Your task to perform on an android device: change timer sound Image 0: 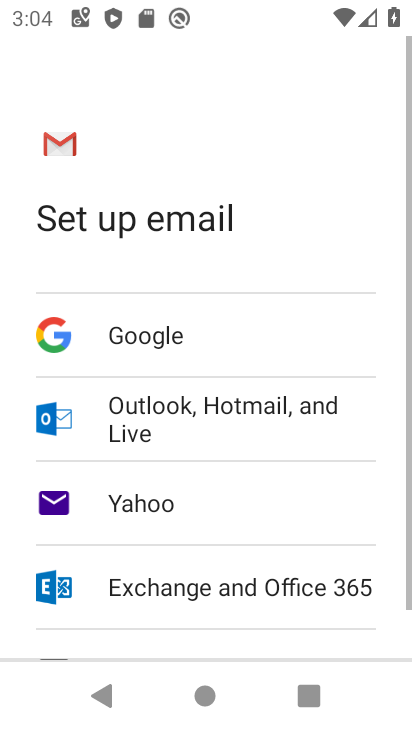
Step 0: press back button
Your task to perform on an android device: change timer sound Image 1: 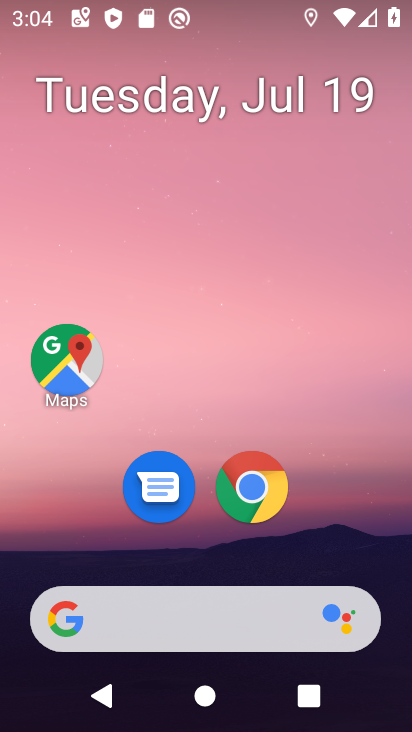
Step 1: drag from (261, 494) to (287, 18)
Your task to perform on an android device: change timer sound Image 2: 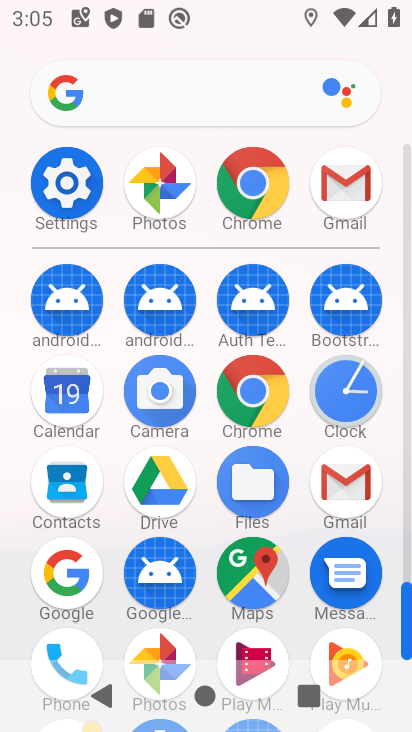
Step 2: click (351, 396)
Your task to perform on an android device: change timer sound Image 3: 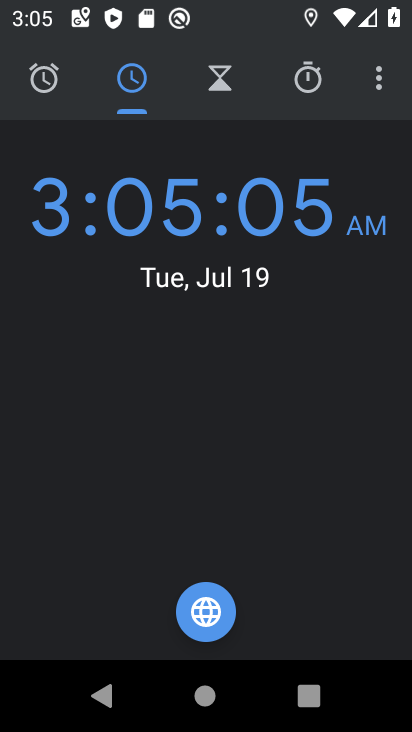
Step 3: click (375, 74)
Your task to perform on an android device: change timer sound Image 4: 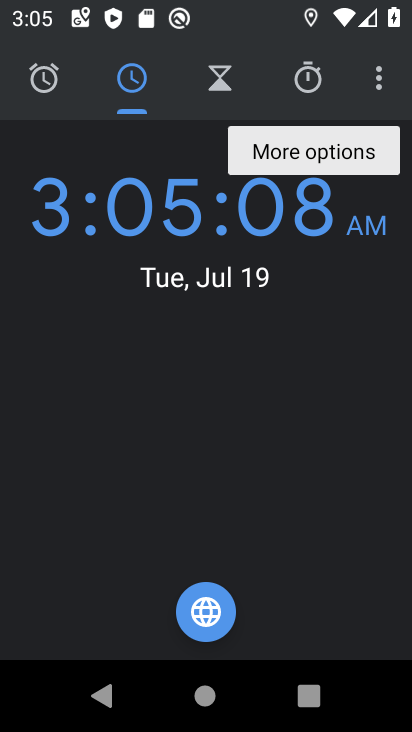
Step 4: click (375, 74)
Your task to perform on an android device: change timer sound Image 5: 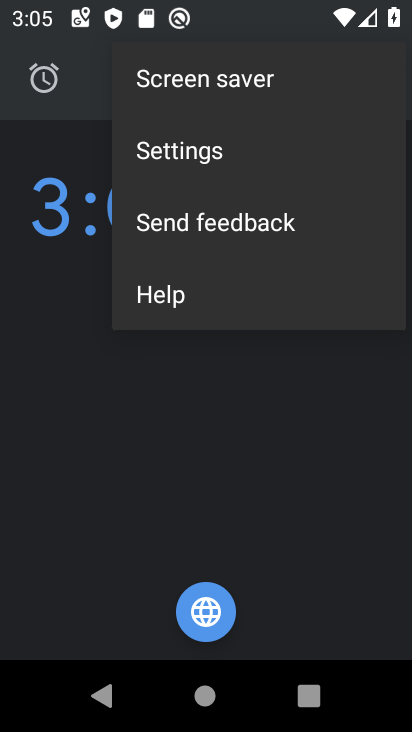
Step 5: click (196, 161)
Your task to perform on an android device: change timer sound Image 6: 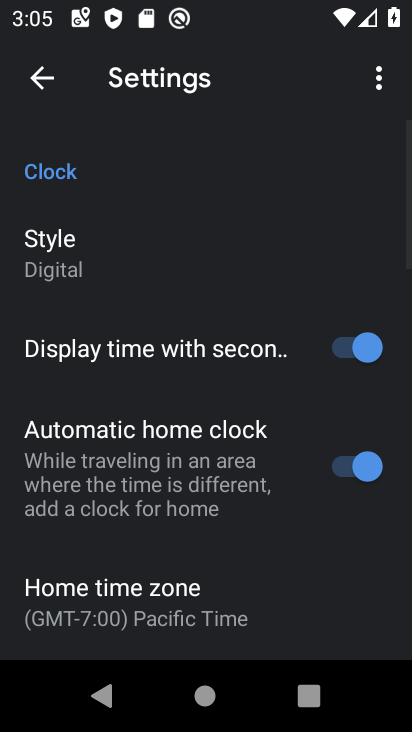
Step 6: drag from (143, 566) to (205, 14)
Your task to perform on an android device: change timer sound Image 7: 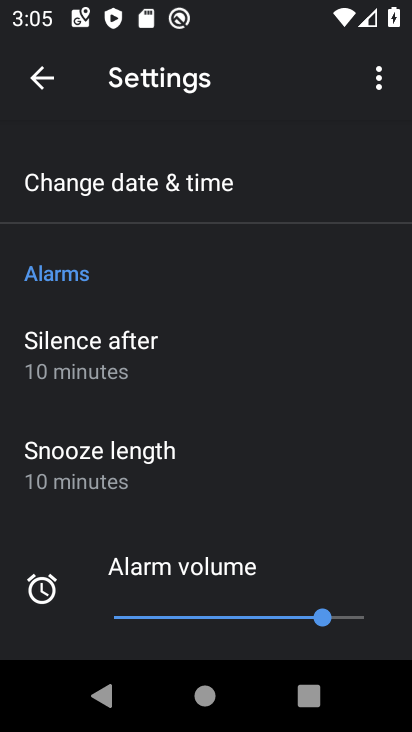
Step 7: drag from (81, 503) to (180, 55)
Your task to perform on an android device: change timer sound Image 8: 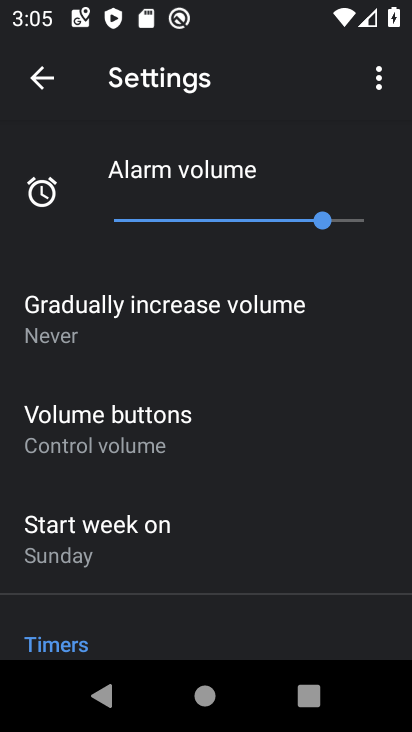
Step 8: drag from (144, 596) to (270, 6)
Your task to perform on an android device: change timer sound Image 9: 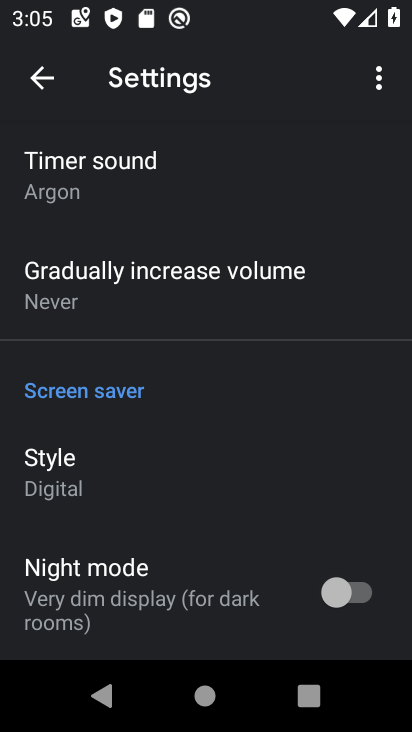
Step 9: click (93, 178)
Your task to perform on an android device: change timer sound Image 10: 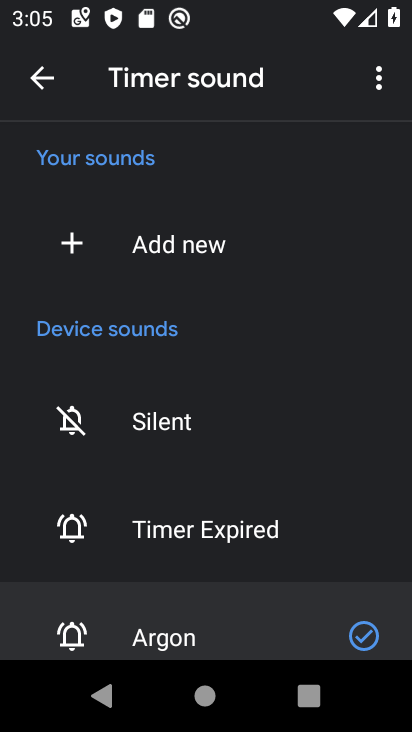
Step 10: drag from (185, 537) to (245, 109)
Your task to perform on an android device: change timer sound Image 11: 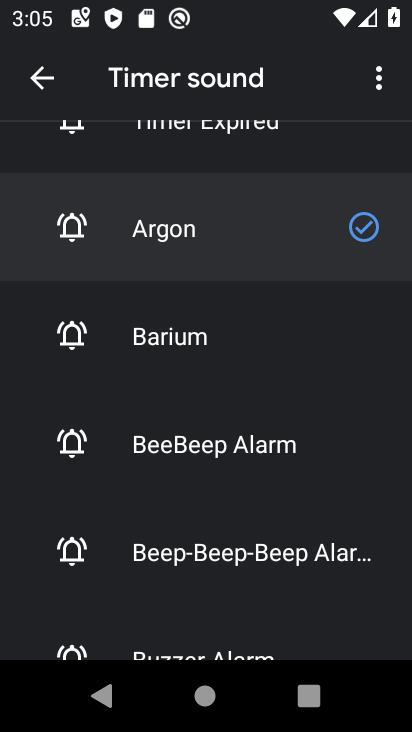
Step 11: click (172, 369)
Your task to perform on an android device: change timer sound Image 12: 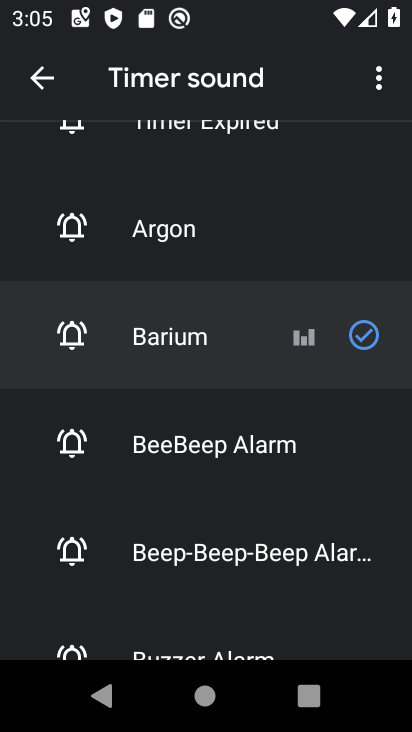
Step 12: task complete